Your task to perform on an android device: Open maps Image 0: 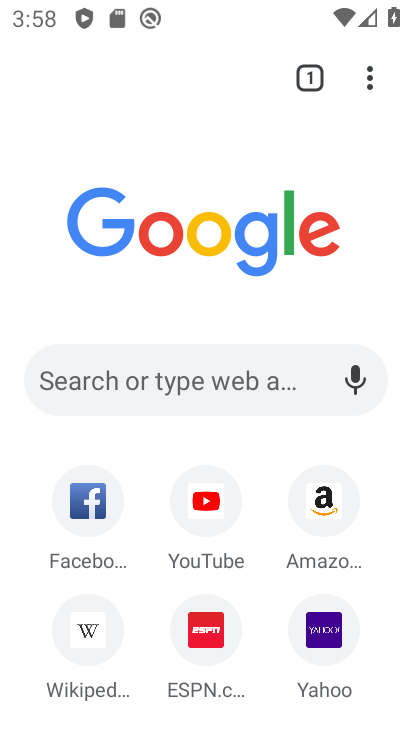
Step 0: press back button
Your task to perform on an android device: Open maps Image 1: 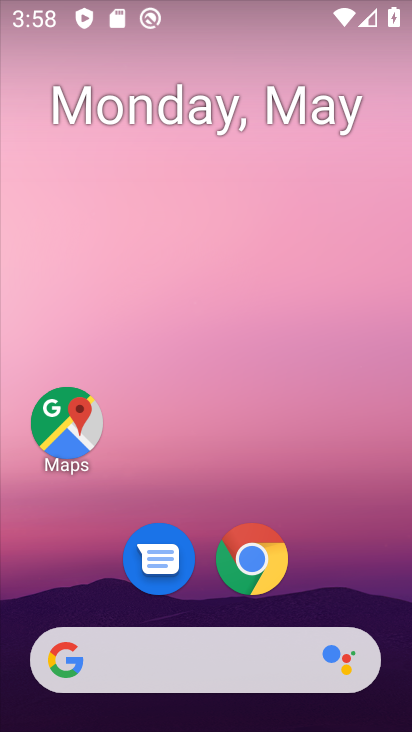
Step 1: click (66, 420)
Your task to perform on an android device: Open maps Image 2: 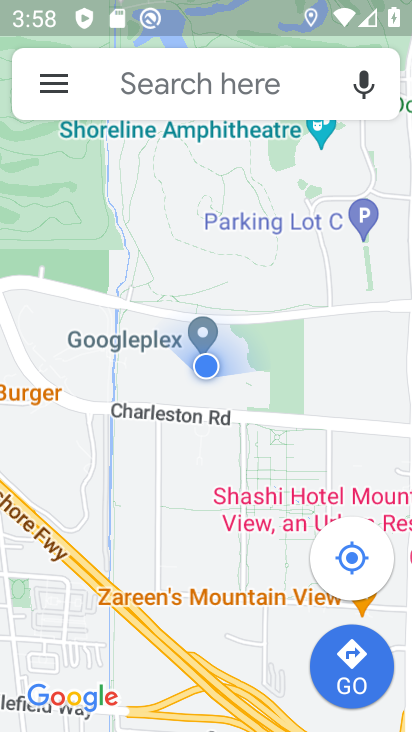
Step 2: task complete